Your task to perform on an android device: Go to settings Image 0: 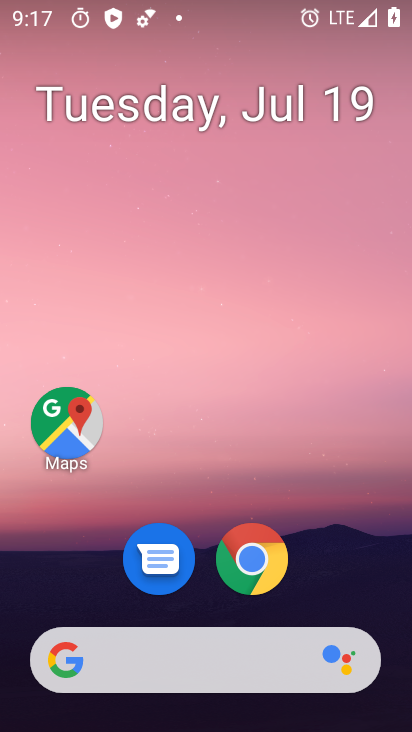
Step 0: drag from (379, 593) to (309, 104)
Your task to perform on an android device: Go to settings Image 1: 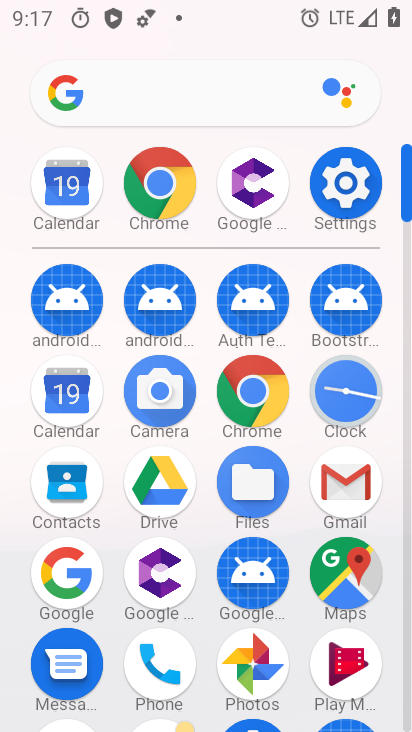
Step 1: click (365, 200)
Your task to perform on an android device: Go to settings Image 2: 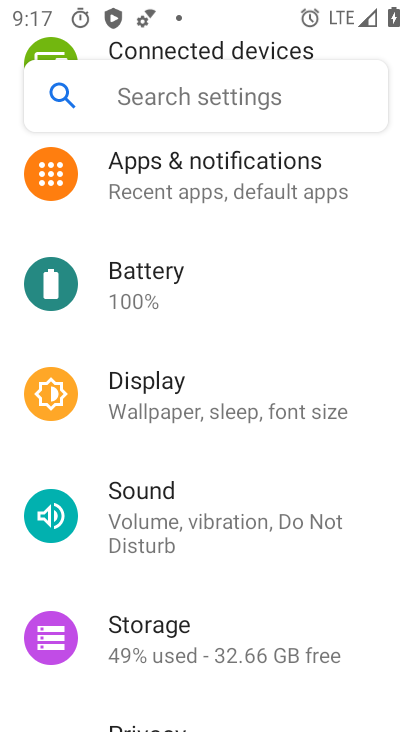
Step 2: task complete